Your task to perform on an android device: add a label to a message in the gmail app Image 0: 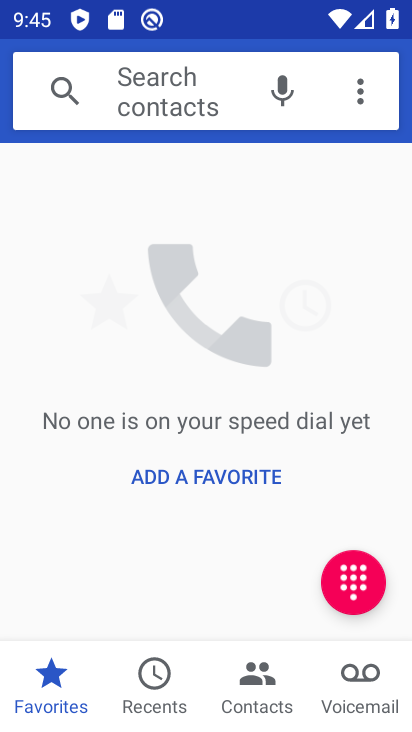
Step 0: press home button
Your task to perform on an android device: add a label to a message in the gmail app Image 1: 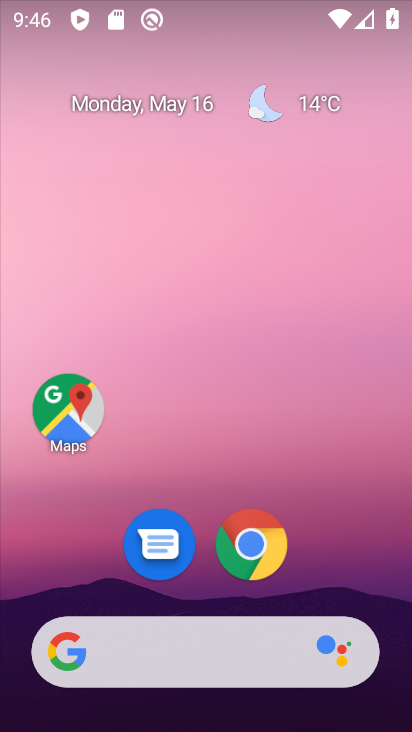
Step 1: drag from (303, 508) to (342, 151)
Your task to perform on an android device: add a label to a message in the gmail app Image 2: 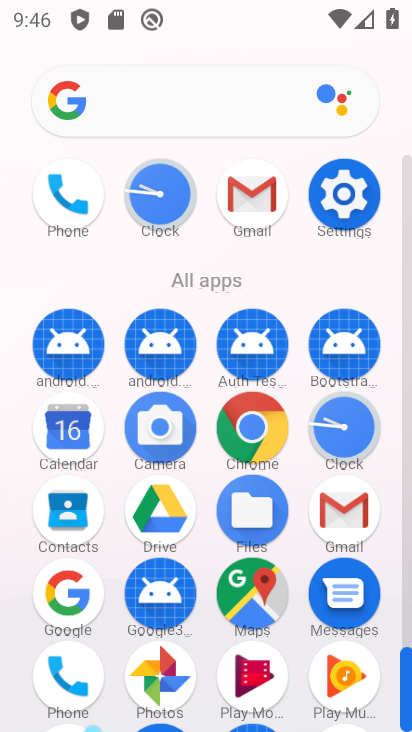
Step 2: click (347, 514)
Your task to perform on an android device: add a label to a message in the gmail app Image 3: 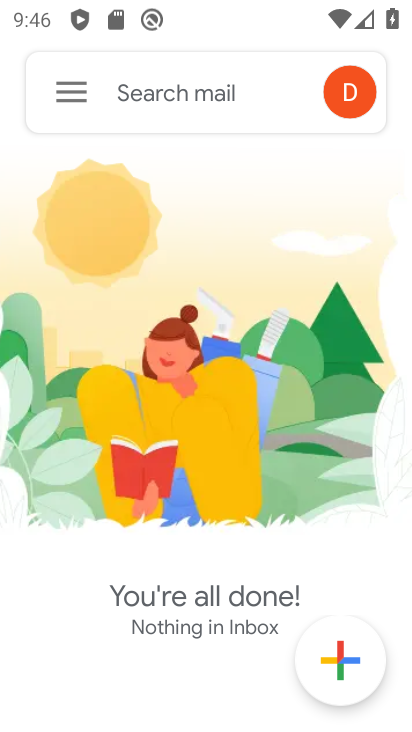
Step 3: task complete